Your task to perform on an android device: turn off picture-in-picture Image 0: 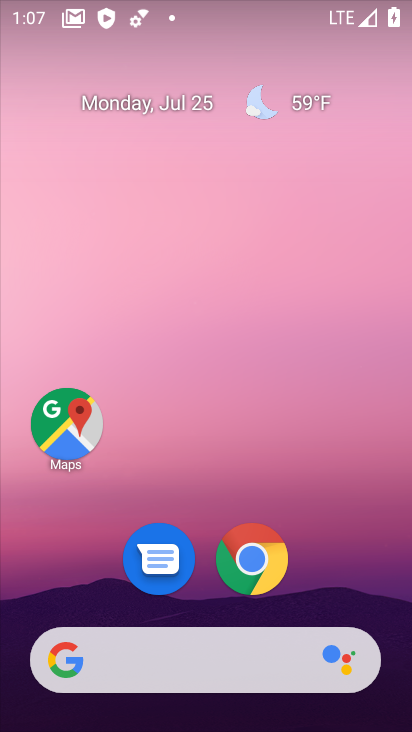
Step 0: drag from (147, 592) to (224, 21)
Your task to perform on an android device: turn off picture-in-picture Image 1: 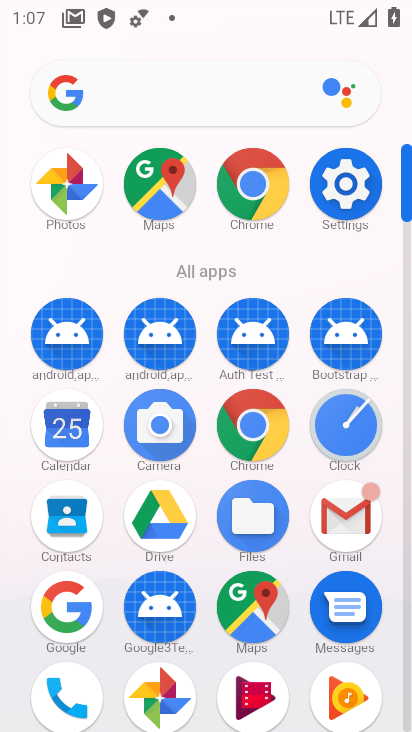
Step 1: drag from (149, 652) to (197, 702)
Your task to perform on an android device: turn off picture-in-picture Image 2: 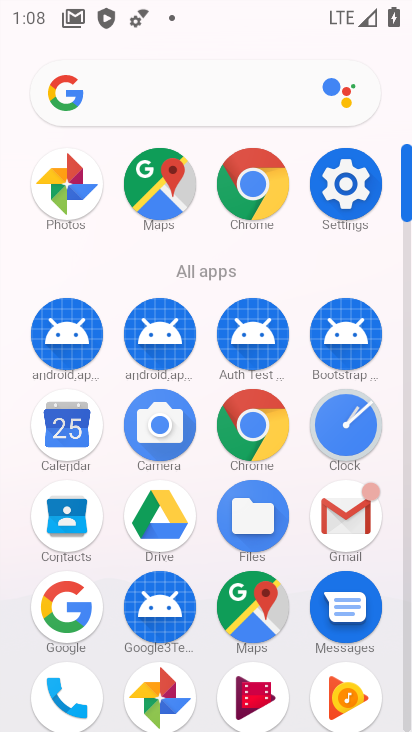
Step 2: click (337, 184)
Your task to perform on an android device: turn off picture-in-picture Image 3: 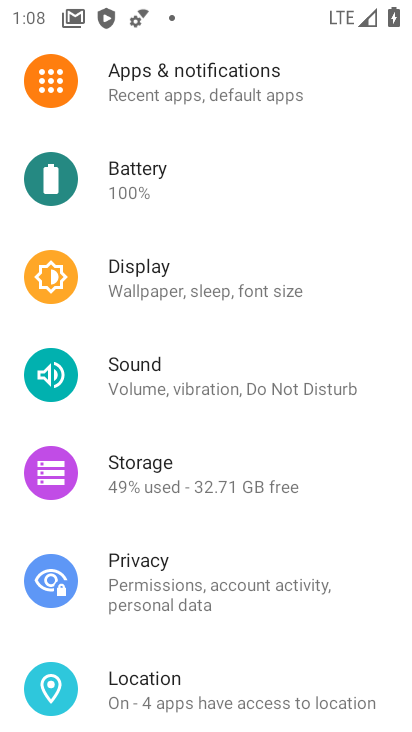
Step 3: drag from (217, 190) to (165, 619)
Your task to perform on an android device: turn off picture-in-picture Image 4: 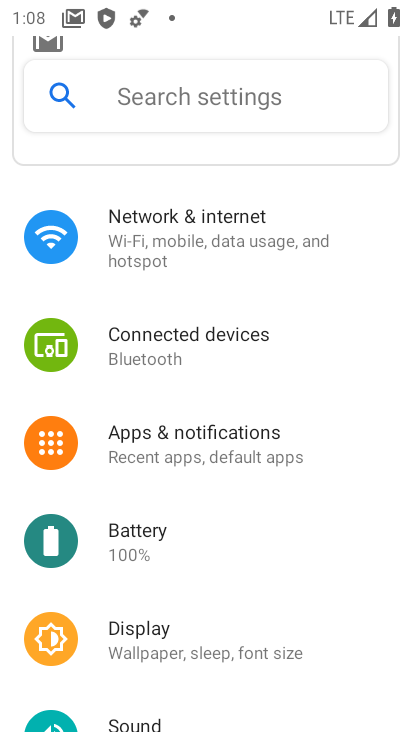
Step 4: click (203, 426)
Your task to perform on an android device: turn off picture-in-picture Image 5: 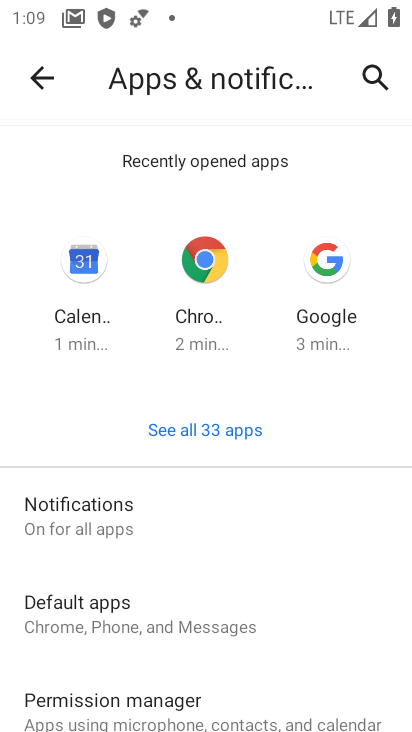
Step 5: click (111, 507)
Your task to perform on an android device: turn off picture-in-picture Image 6: 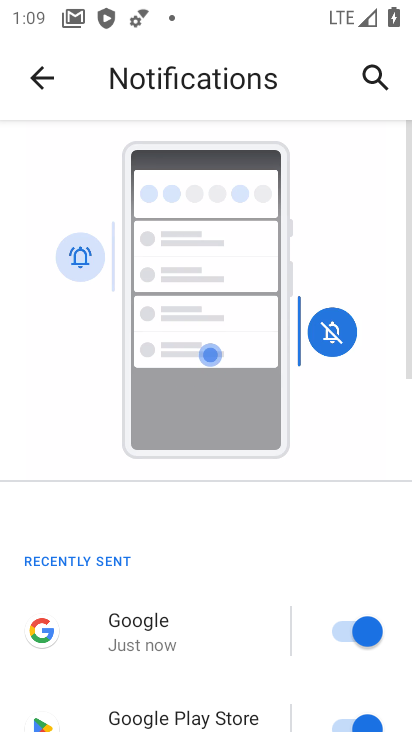
Step 6: drag from (129, 665) to (318, 18)
Your task to perform on an android device: turn off picture-in-picture Image 7: 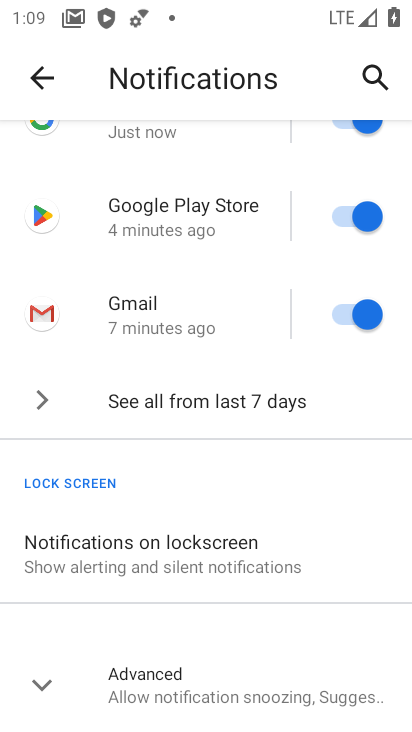
Step 7: drag from (168, 611) to (279, 50)
Your task to perform on an android device: turn off picture-in-picture Image 8: 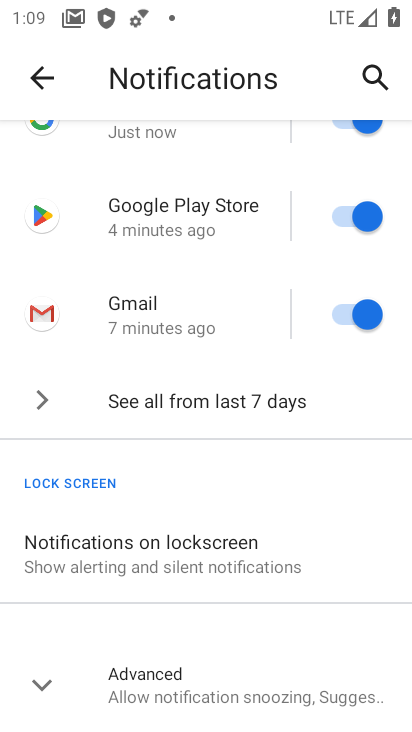
Step 8: click (179, 685)
Your task to perform on an android device: turn off picture-in-picture Image 9: 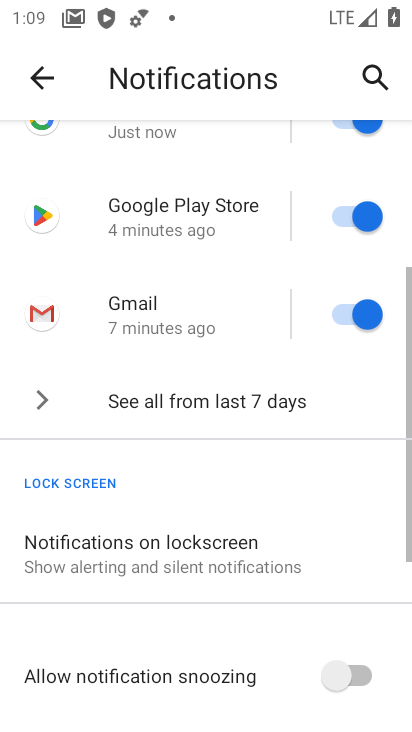
Step 9: drag from (181, 685) to (220, 63)
Your task to perform on an android device: turn off picture-in-picture Image 10: 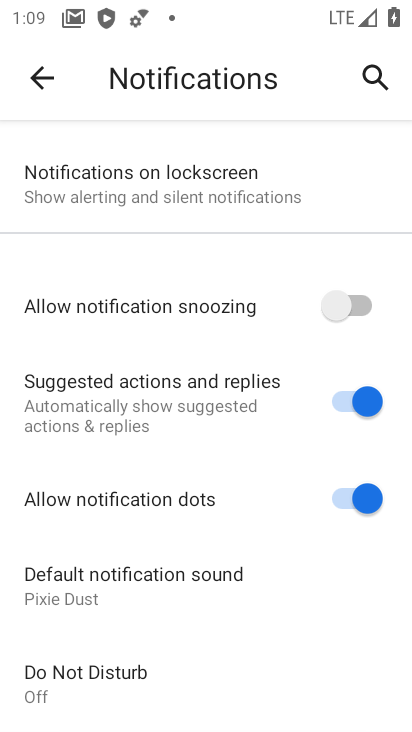
Step 10: drag from (175, 632) to (315, 18)
Your task to perform on an android device: turn off picture-in-picture Image 11: 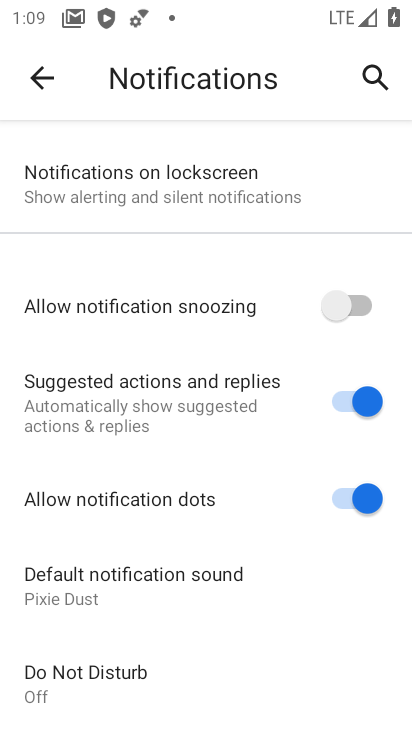
Step 11: click (31, 58)
Your task to perform on an android device: turn off picture-in-picture Image 12: 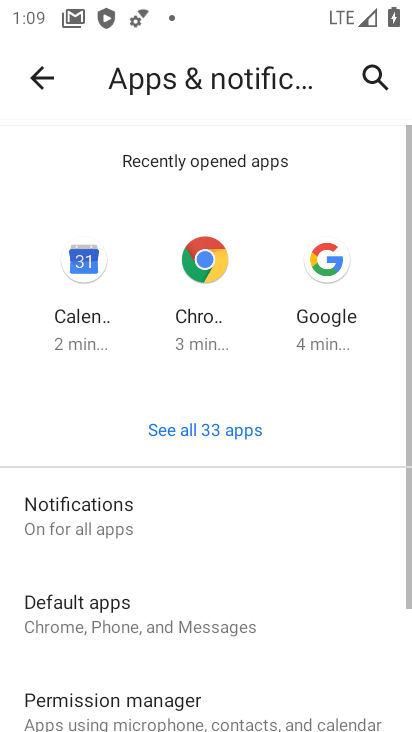
Step 12: drag from (105, 643) to (272, 19)
Your task to perform on an android device: turn off picture-in-picture Image 13: 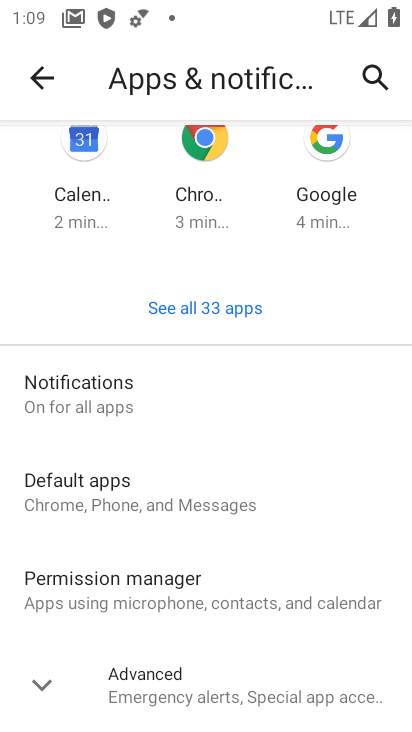
Step 13: click (153, 673)
Your task to perform on an android device: turn off picture-in-picture Image 14: 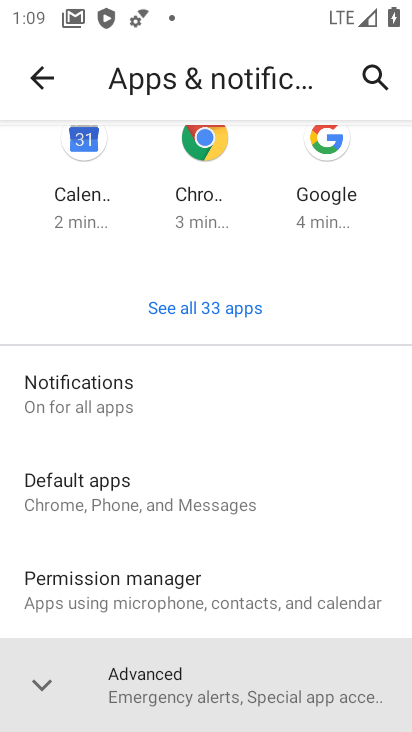
Step 14: drag from (157, 670) to (298, 68)
Your task to perform on an android device: turn off picture-in-picture Image 15: 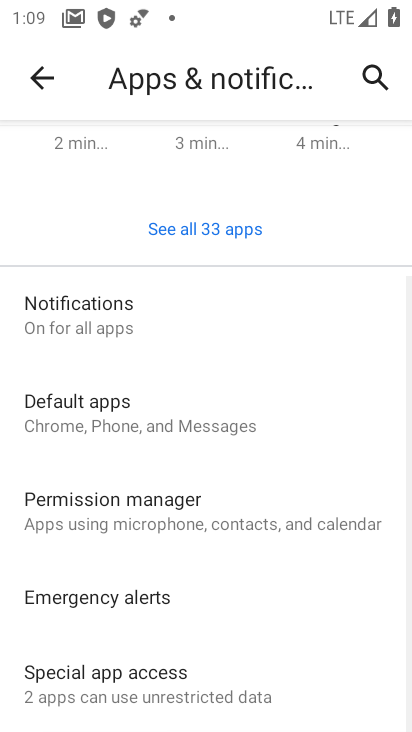
Step 15: click (149, 653)
Your task to perform on an android device: turn off picture-in-picture Image 16: 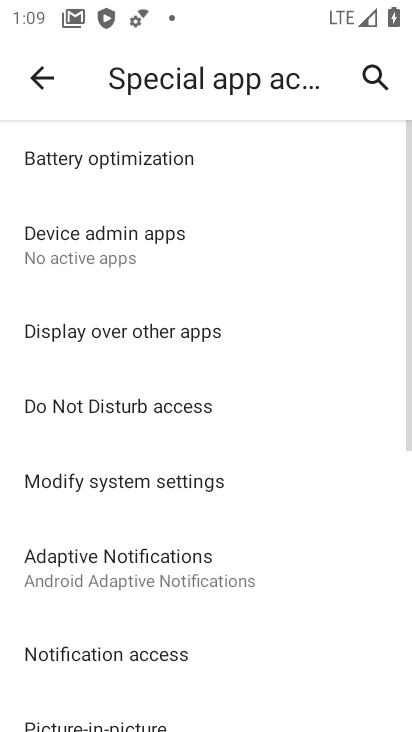
Step 16: drag from (229, 307) to (292, 20)
Your task to perform on an android device: turn off picture-in-picture Image 17: 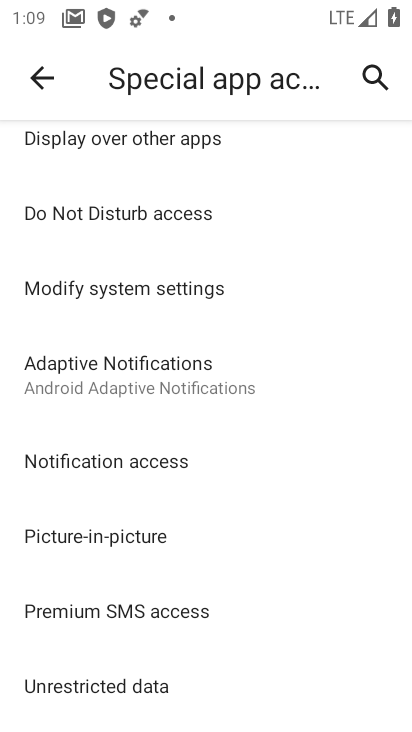
Step 17: click (68, 535)
Your task to perform on an android device: turn off picture-in-picture Image 18: 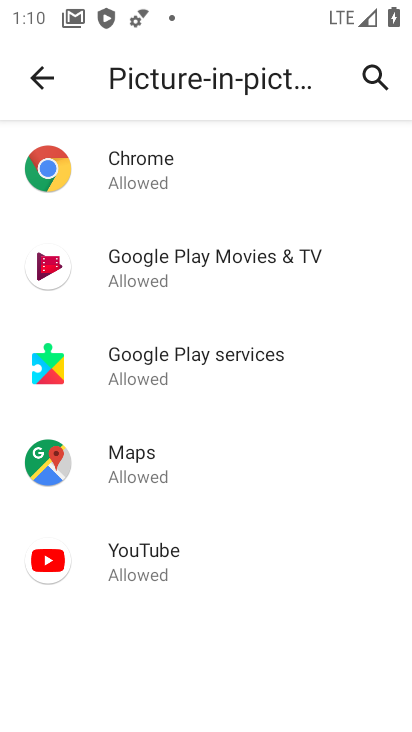
Step 18: click (162, 159)
Your task to perform on an android device: turn off picture-in-picture Image 19: 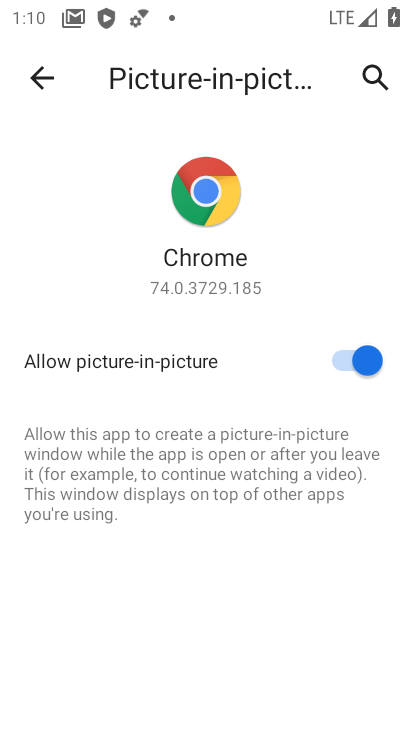
Step 19: click (364, 356)
Your task to perform on an android device: turn off picture-in-picture Image 20: 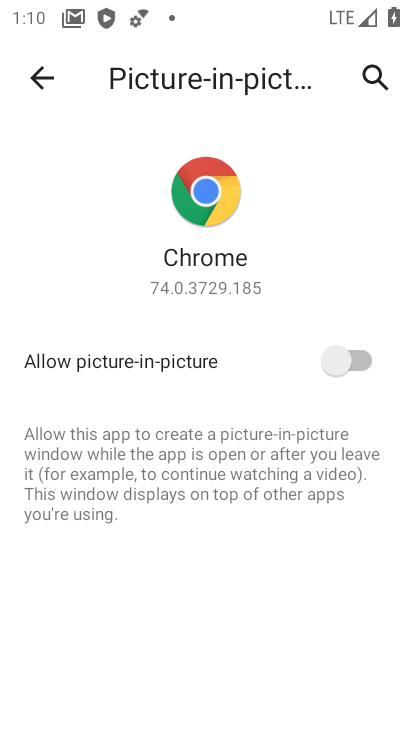
Step 20: task complete